Your task to perform on an android device: turn off sleep mode Image 0: 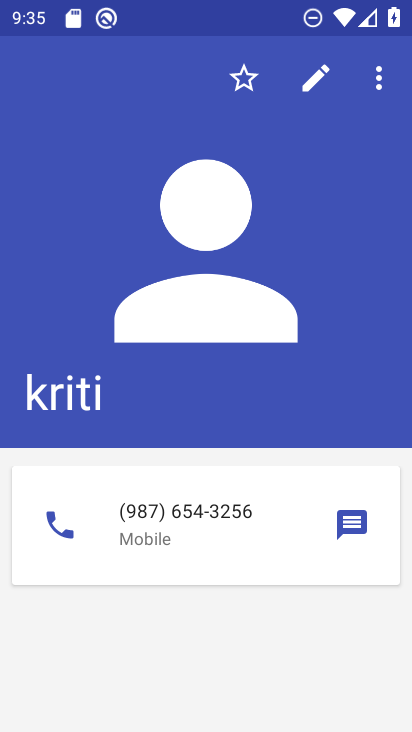
Step 0: press home button
Your task to perform on an android device: turn off sleep mode Image 1: 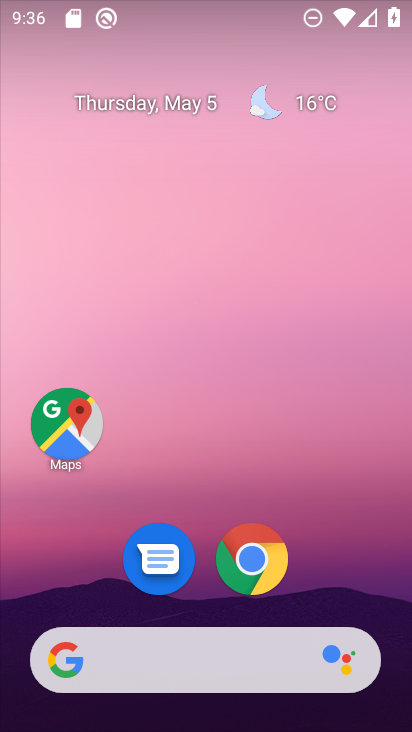
Step 1: drag from (343, 590) to (330, 12)
Your task to perform on an android device: turn off sleep mode Image 2: 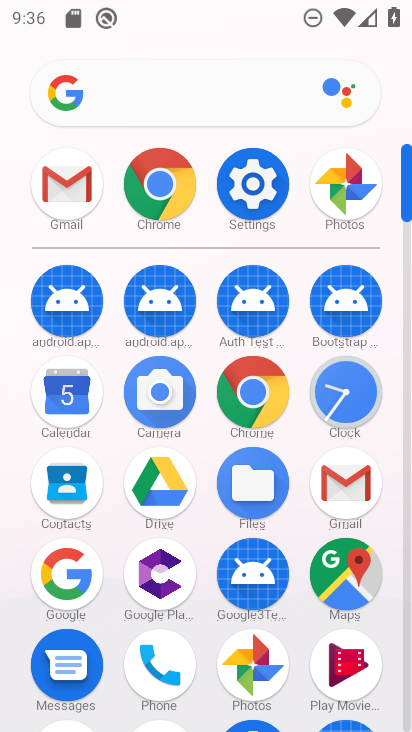
Step 2: click (257, 190)
Your task to perform on an android device: turn off sleep mode Image 3: 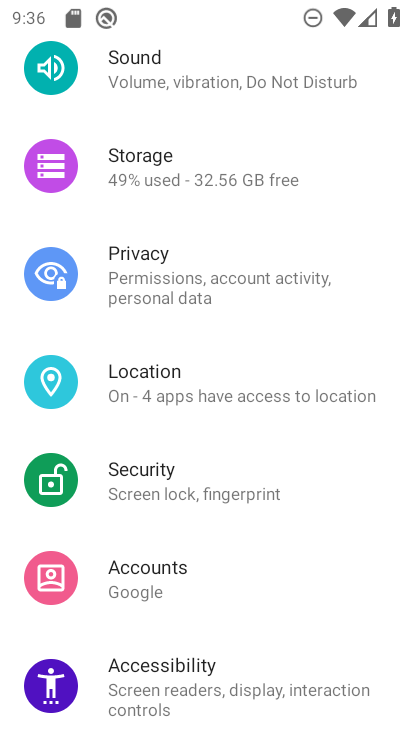
Step 3: drag from (300, 507) to (338, 723)
Your task to perform on an android device: turn off sleep mode Image 4: 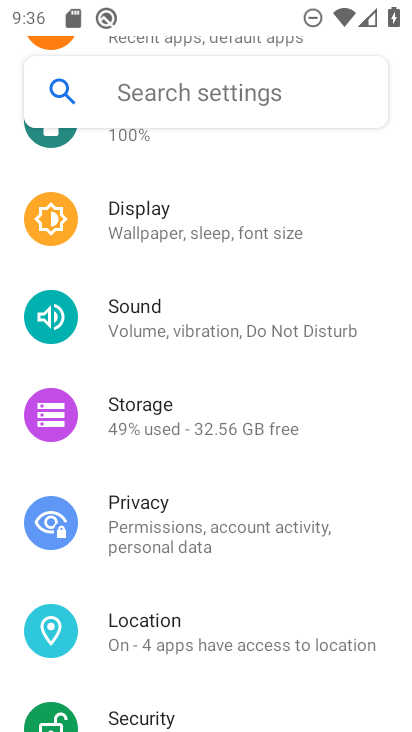
Step 4: click (142, 234)
Your task to perform on an android device: turn off sleep mode Image 5: 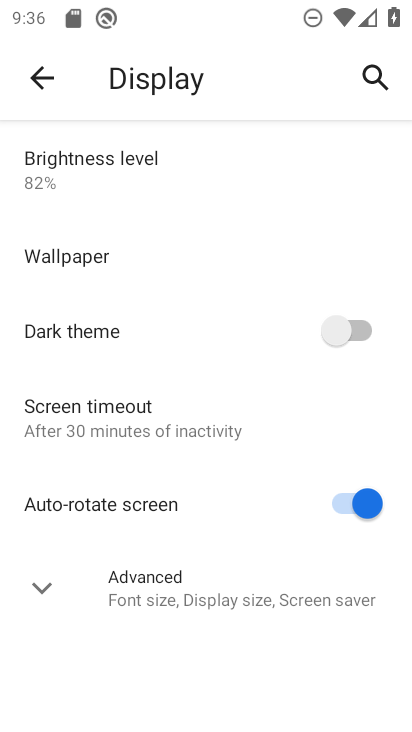
Step 5: click (44, 595)
Your task to perform on an android device: turn off sleep mode Image 6: 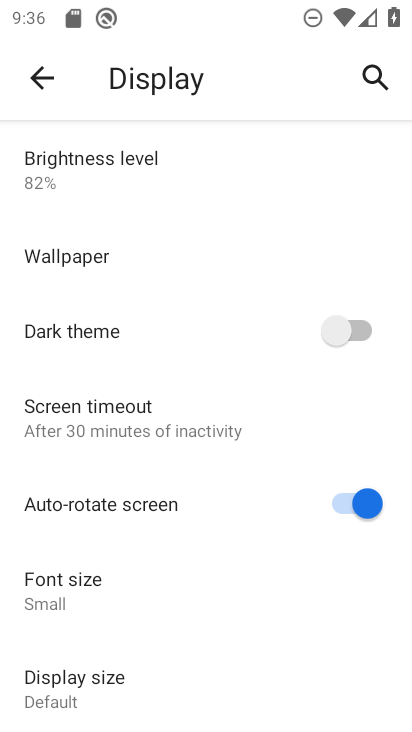
Step 6: task complete